Your task to perform on an android device: toggle wifi Image 0: 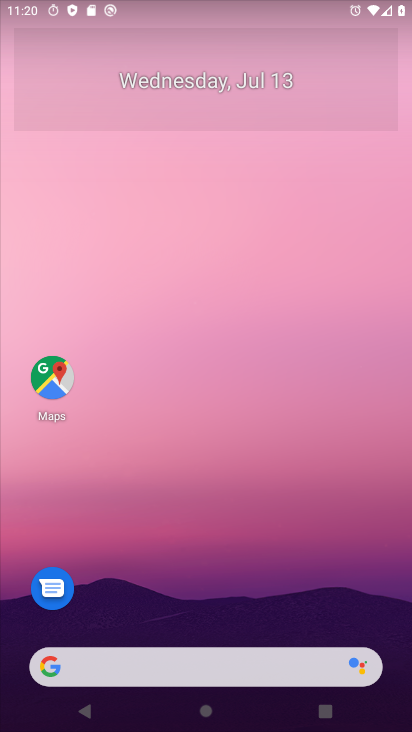
Step 0: drag from (260, 725) to (384, 27)
Your task to perform on an android device: toggle wifi Image 1: 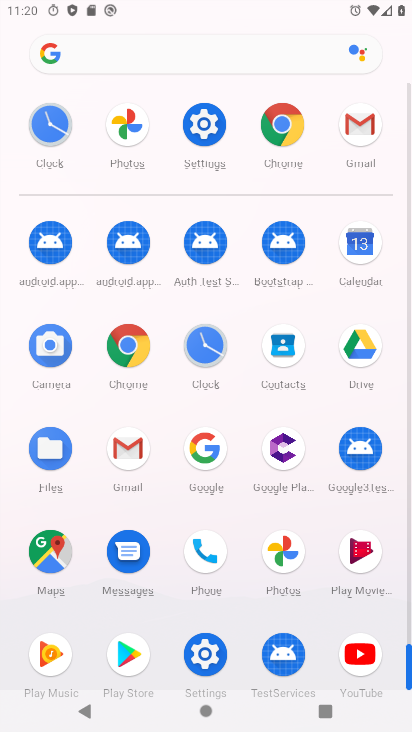
Step 1: click (196, 118)
Your task to perform on an android device: toggle wifi Image 2: 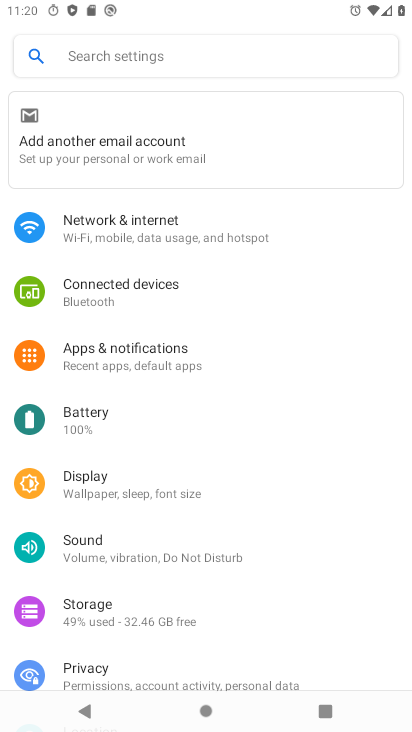
Step 2: click (251, 240)
Your task to perform on an android device: toggle wifi Image 3: 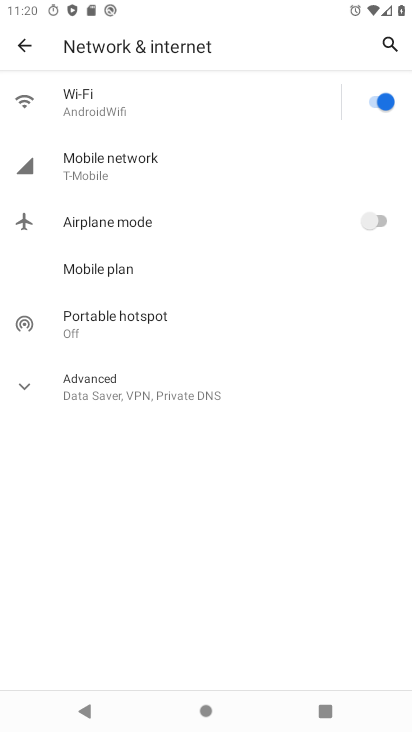
Step 3: click (387, 106)
Your task to perform on an android device: toggle wifi Image 4: 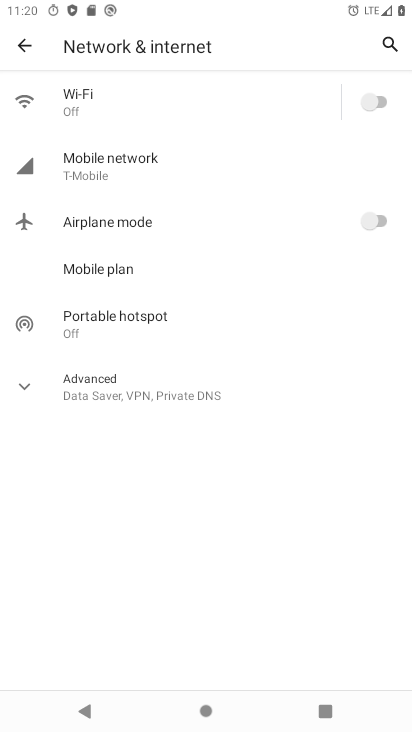
Step 4: task complete